Your task to perform on an android device: toggle javascript in the chrome app Image 0: 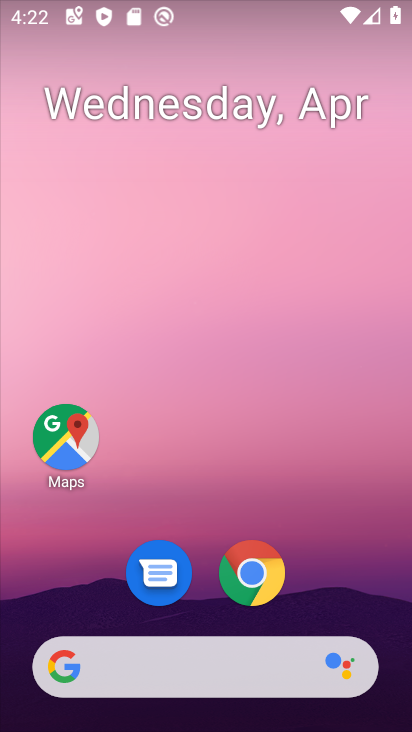
Step 0: click (265, 572)
Your task to perform on an android device: toggle javascript in the chrome app Image 1: 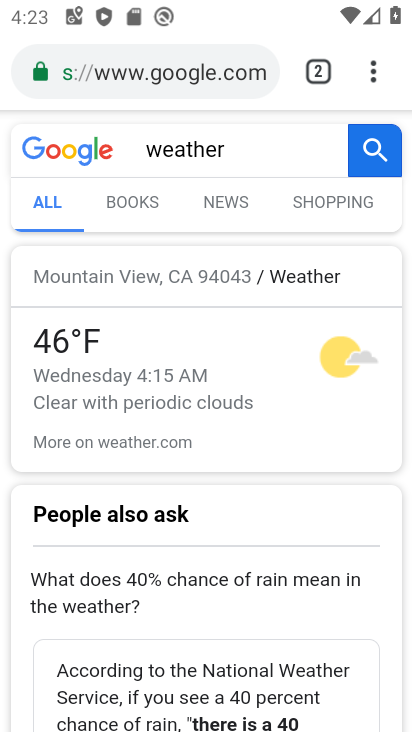
Step 1: click (376, 73)
Your task to perform on an android device: toggle javascript in the chrome app Image 2: 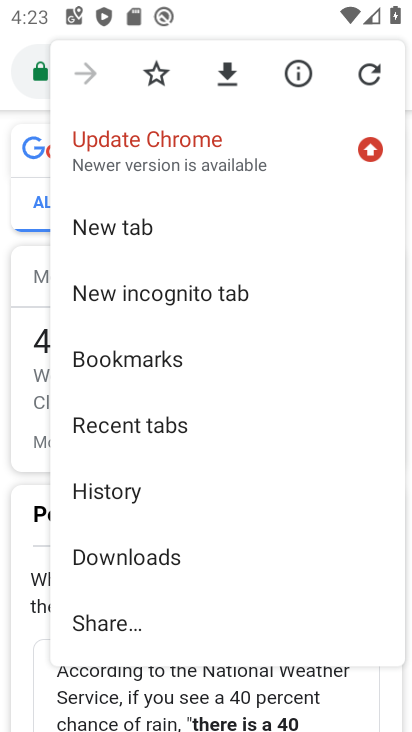
Step 2: drag from (196, 537) to (200, 169)
Your task to perform on an android device: toggle javascript in the chrome app Image 3: 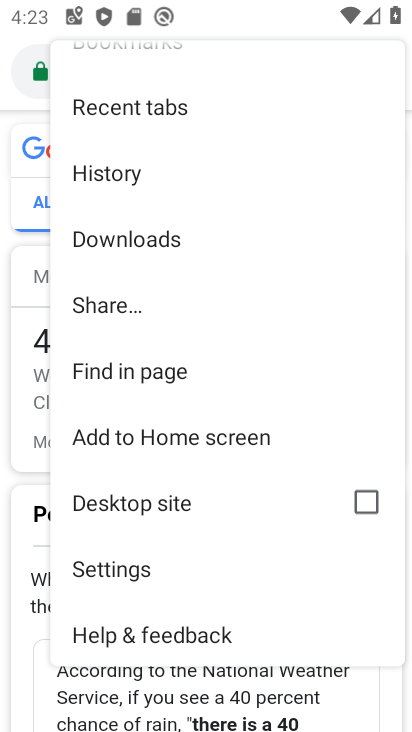
Step 3: click (127, 571)
Your task to perform on an android device: toggle javascript in the chrome app Image 4: 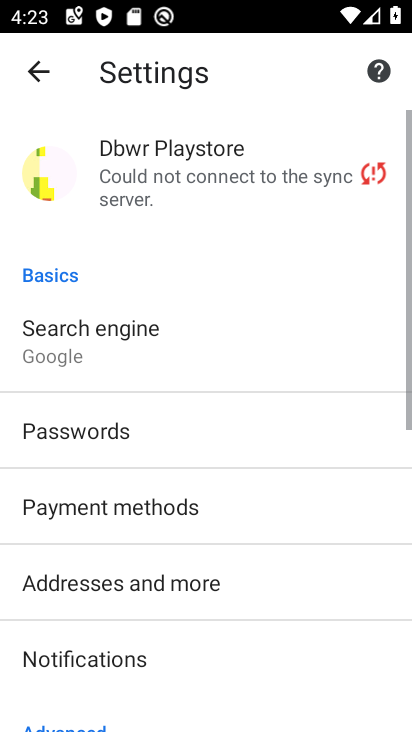
Step 4: drag from (263, 608) to (274, 132)
Your task to perform on an android device: toggle javascript in the chrome app Image 5: 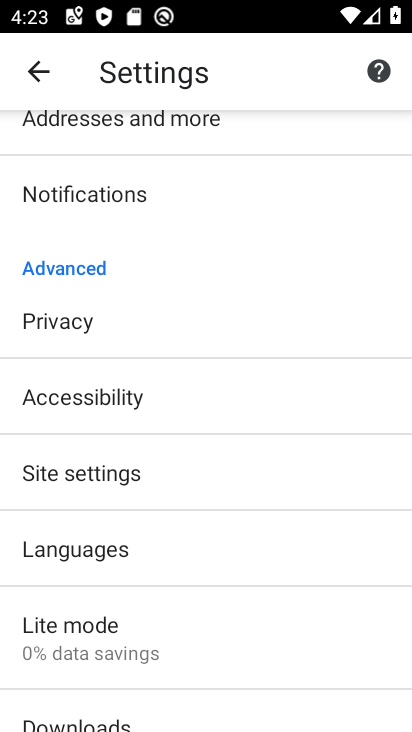
Step 5: click (93, 482)
Your task to perform on an android device: toggle javascript in the chrome app Image 6: 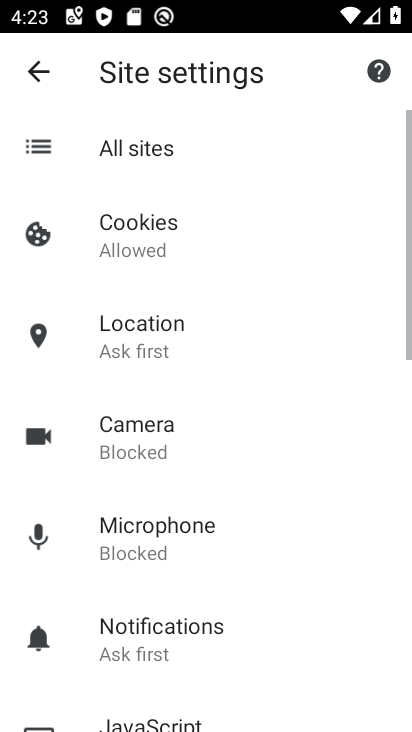
Step 6: drag from (343, 576) to (353, 230)
Your task to perform on an android device: toggle javascript in the chrome app Image 7: 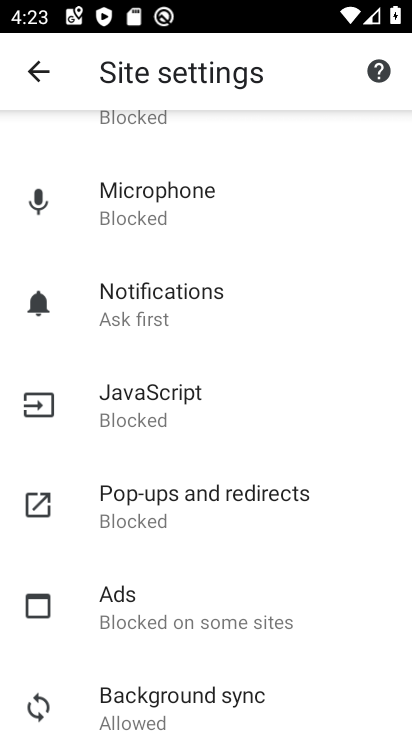
Step 7: click (118, 406)
Your task to perform on an android device: toggle javascript in the chrome app Image 8: 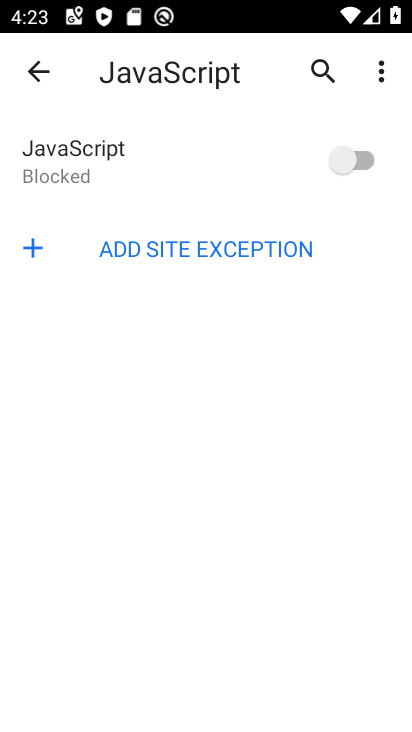
Step 8: click (335, 160)
Your task to perform on an android device: toggle javascript in the chrome app Image 9: 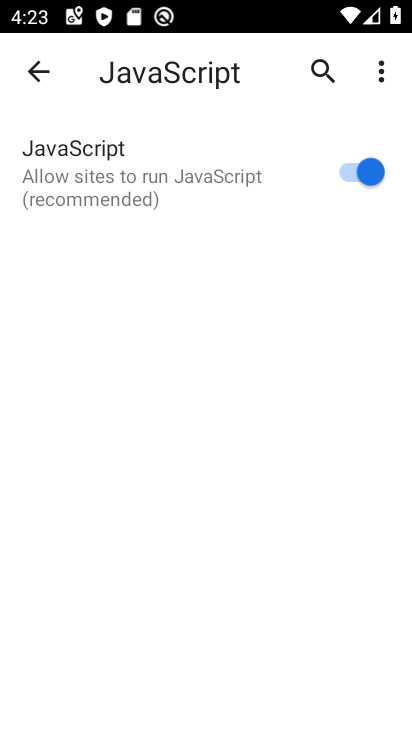
Step 9: task complete